Your task to perform on an android device: remove spam from my inbox in the gmail app Image 0: 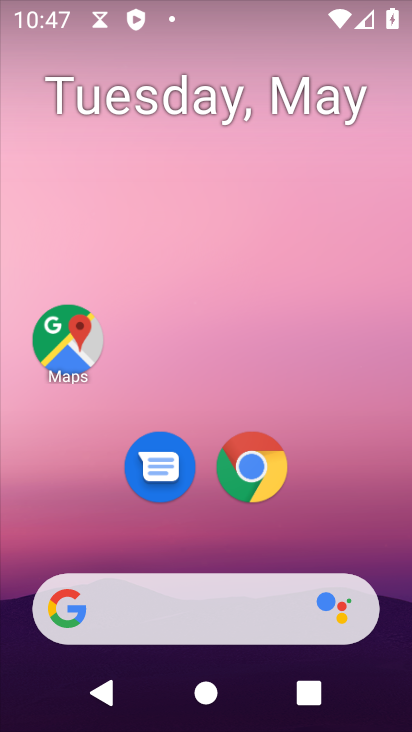
Step 0: drag from (388, 559) to (280, 6)
Your task to perform on an android device: remove spam from my inbox in the gmail app Image 1: 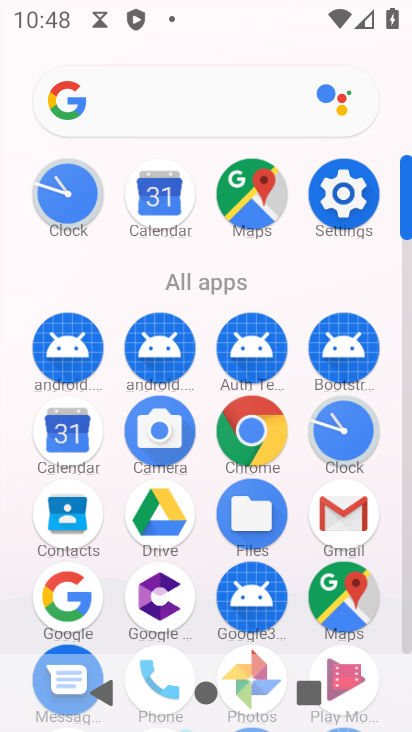
Step 1: click (349, 535)
Your task to perform on an android device: remove spam from my inbox in the gmail app Image 2: 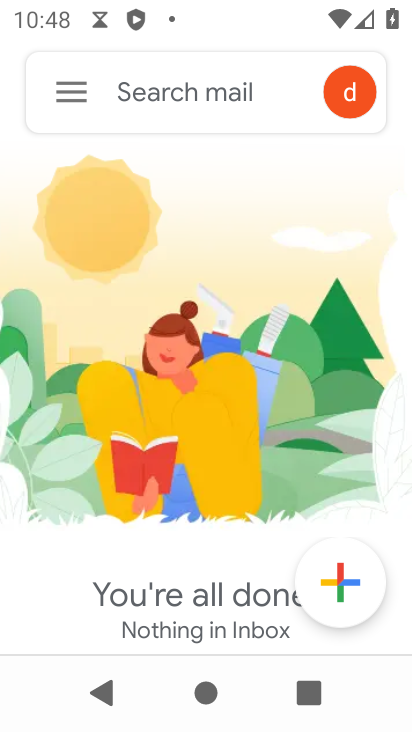
Step 2: click (65, 96)
Your task to perform on an android device: remove spam from my inbox in the gmail app Image 3: 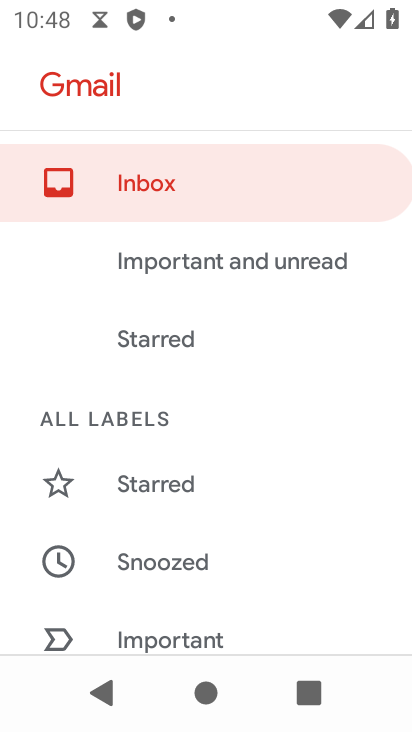
Step 3: drag from (252, 608) to (207, 121)
Your task to perform on an android device: remove spam from my inbox in the gmail app Image 4: 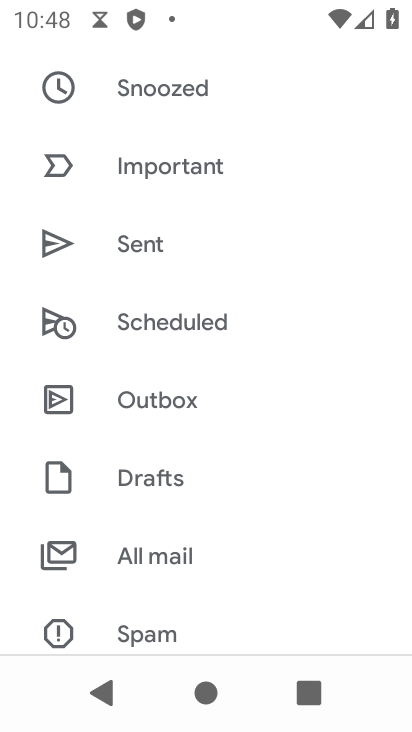
Step 4: drag from (233, 592) to (212, 268)
Your task to perform on an android device: remove spam from my inbox in the gmail app Image 5: 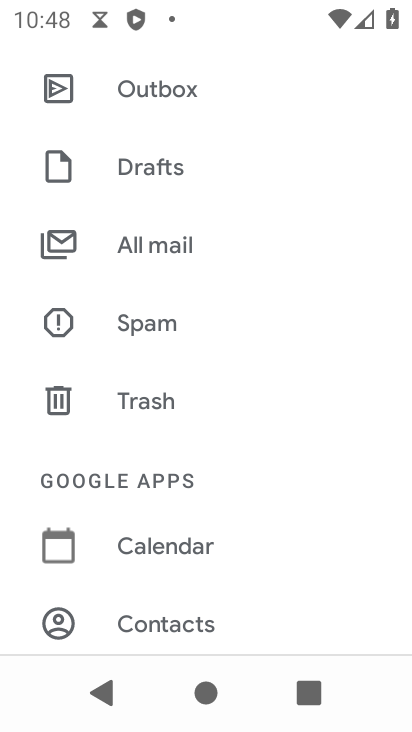
Step 5: click (207, 314)
Your task to perform on an android device: remove spam from my inbox in the gmail app Image 6: 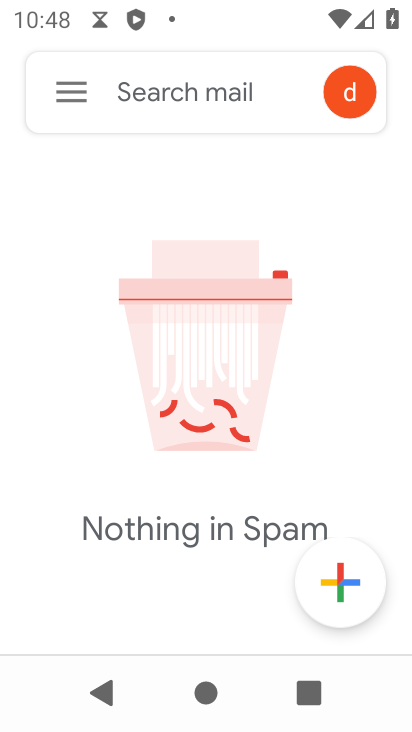
Step 6: task complete